Your task to perform on an android device: open app "NewsBreak: Local News & Alerts" (install if not already installed) Image 0: 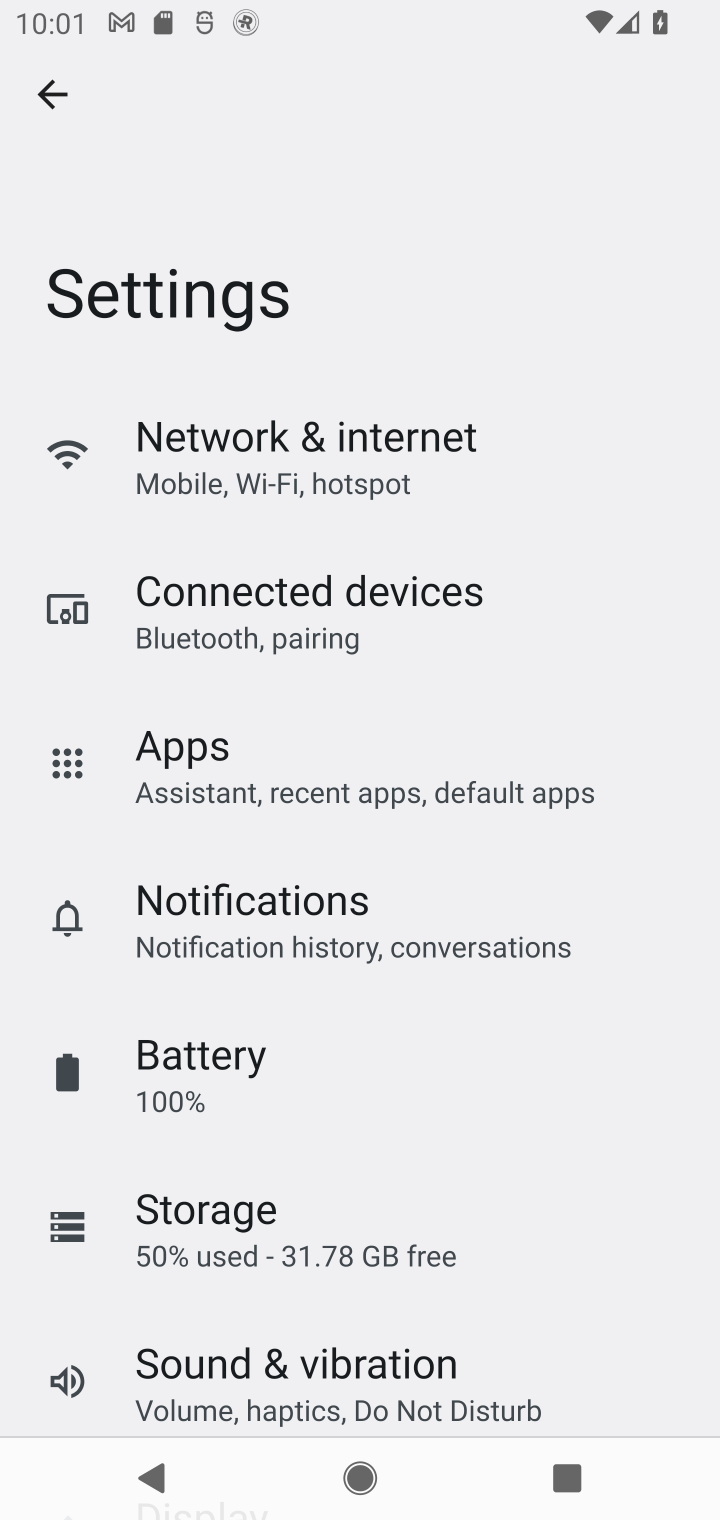
Step 0: press home button
Your task to perform on an android device: open app "NewsBreak: Local News & Alerts" (install if not already installed) Image 1: 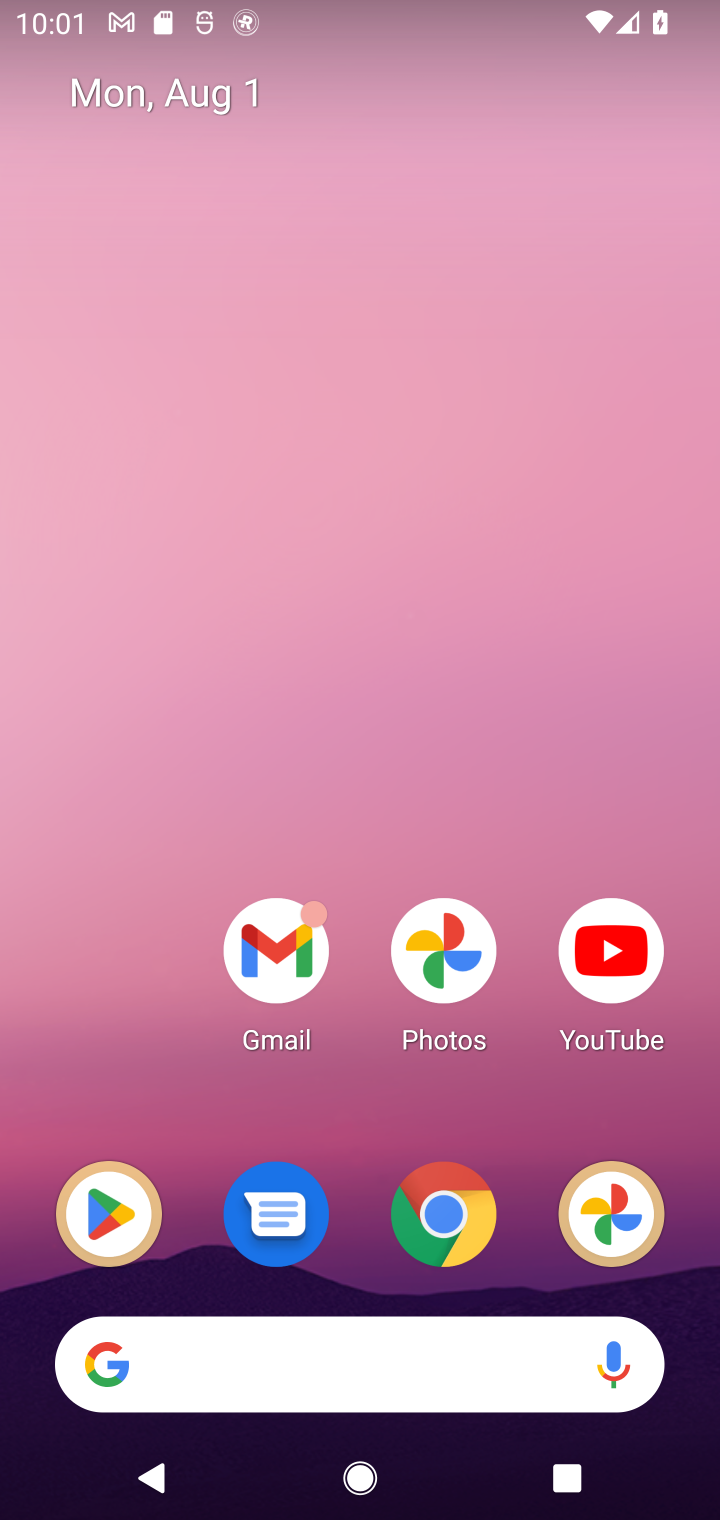
Step 1: click (90, 1213)
Your task to perform on an android device: open app "NewsBreak: Local News & Alerts" (install if not already installed) Image 2: 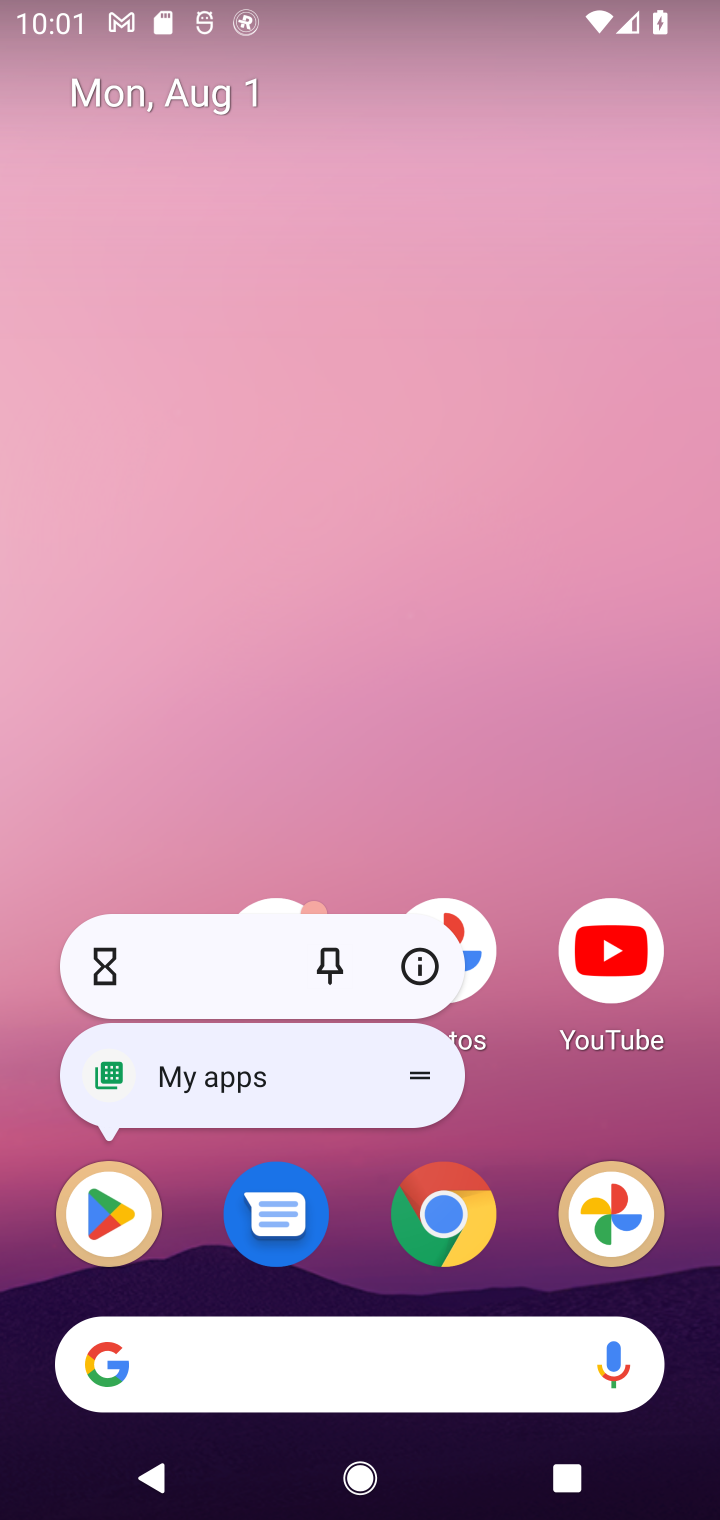
Step 2: click (90, 1213)
Your task to perform on an android device: open app "NewsBreak: Local News & Alerts" (install if not already installed) Image 3: 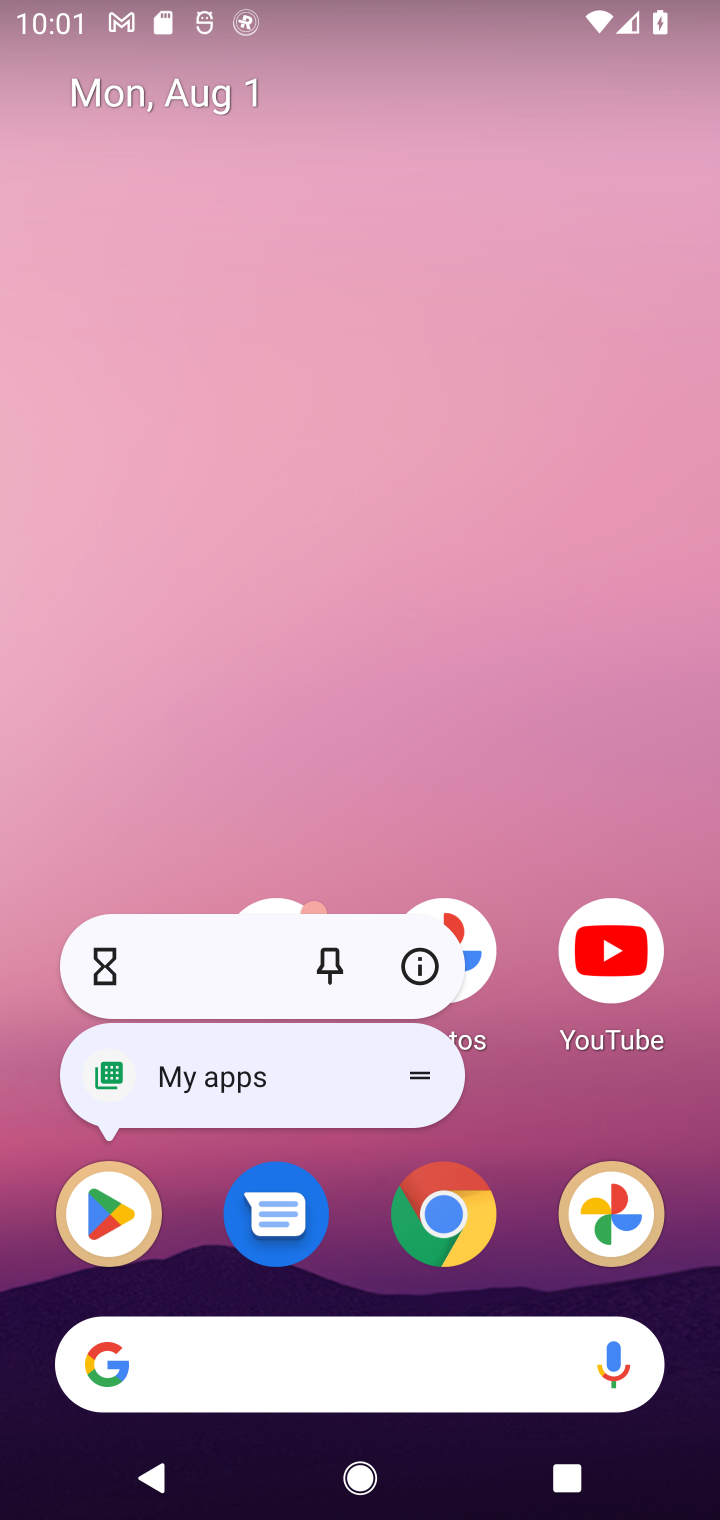
Step 3: click (90, 1213)
Your task to perform on an android device: open app "NewsBreak: Local News & Alerts" (install if not already installed) Image 4: 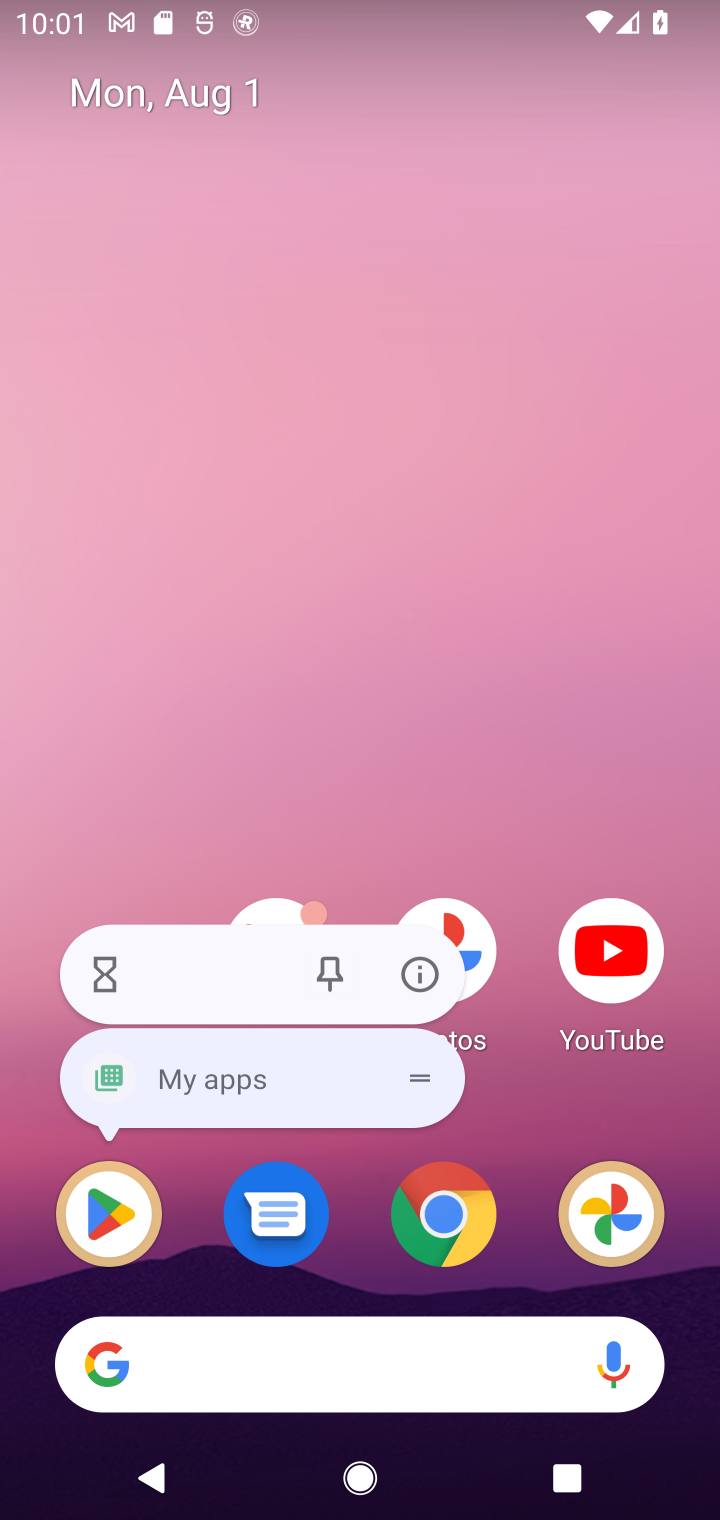
Step 4: click (90, 1209)
Your task to perform on an android device: open app "NewsBreak: Local News & Alerts" (install if not already installed) Image 5: 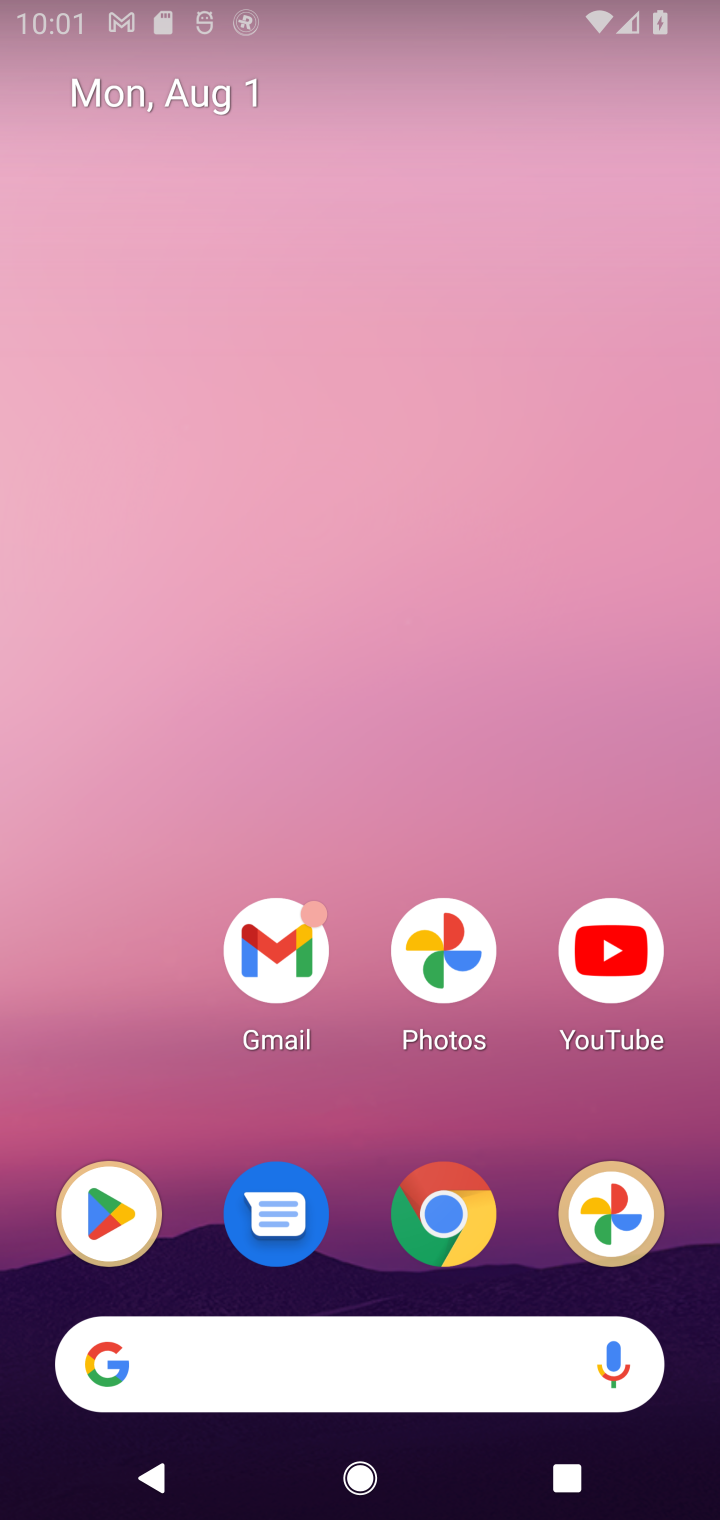
Step 5: click (90, 1209)
Your task to perform on an android device: open app "NewsBreak: Local News & Alerts" (install if not already installed) Image 6: 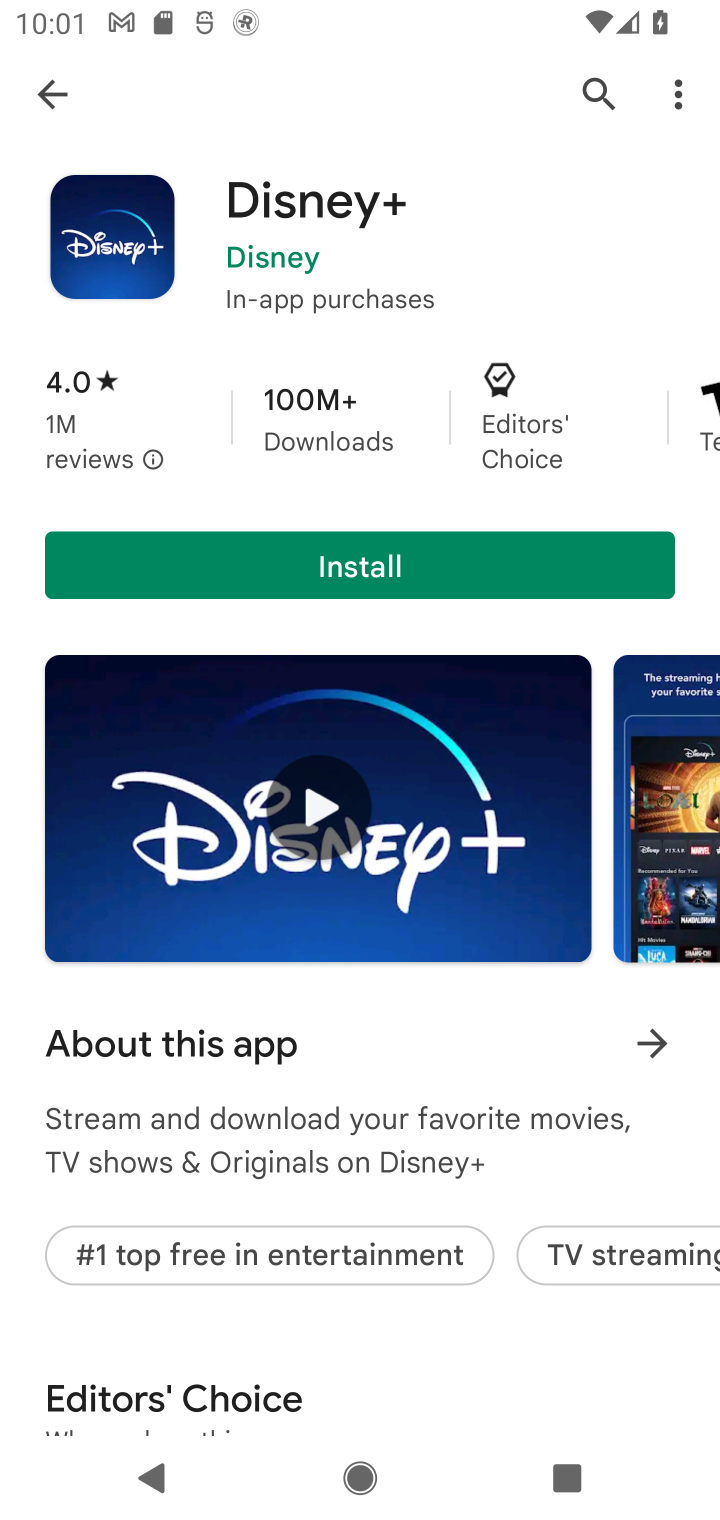
Step 6: click (590, 72)
Your task to perform on an android device: open app "NewsBreak: Local News & Alerts" (install if not already installed) Image 7: 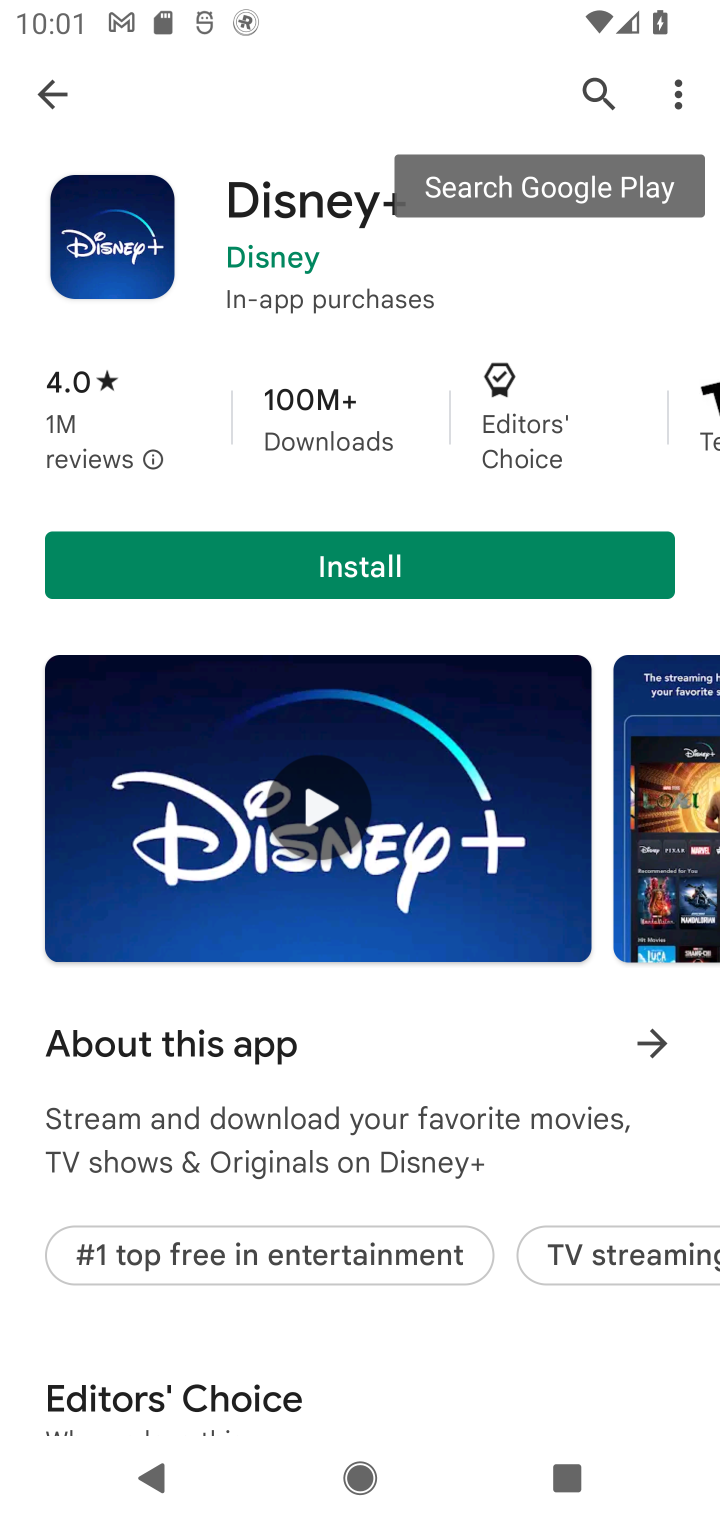
Step 7: click (588, 91)
Your task to perform on an android device: open app "NewsBreak: Local News & Alerts" (install if not already installed) Image 8: 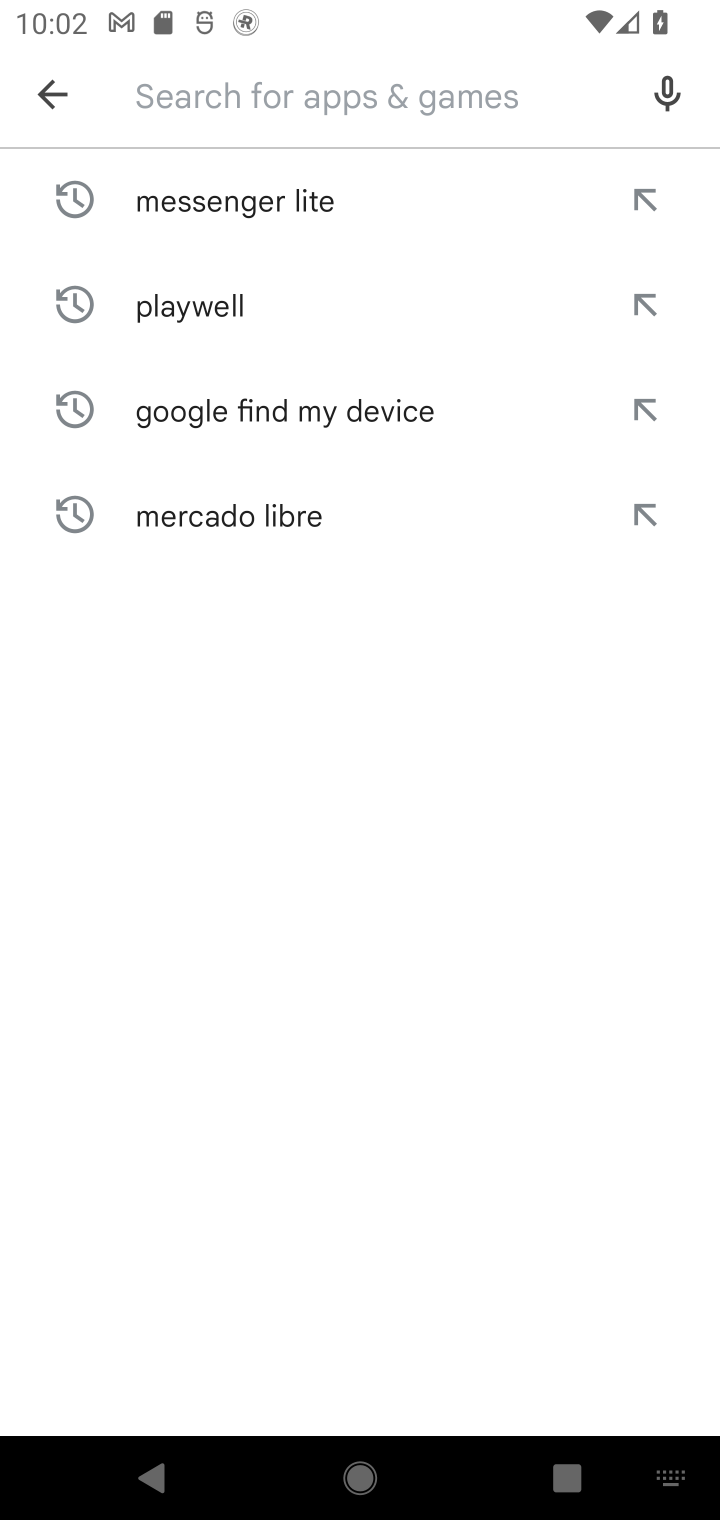
Step 8: type "NewsBreak: Local News & Alerts"
Your task to perform on an android device: open app "NewsBreak: Local News & Alerts" (install if not already installed) Image 9: 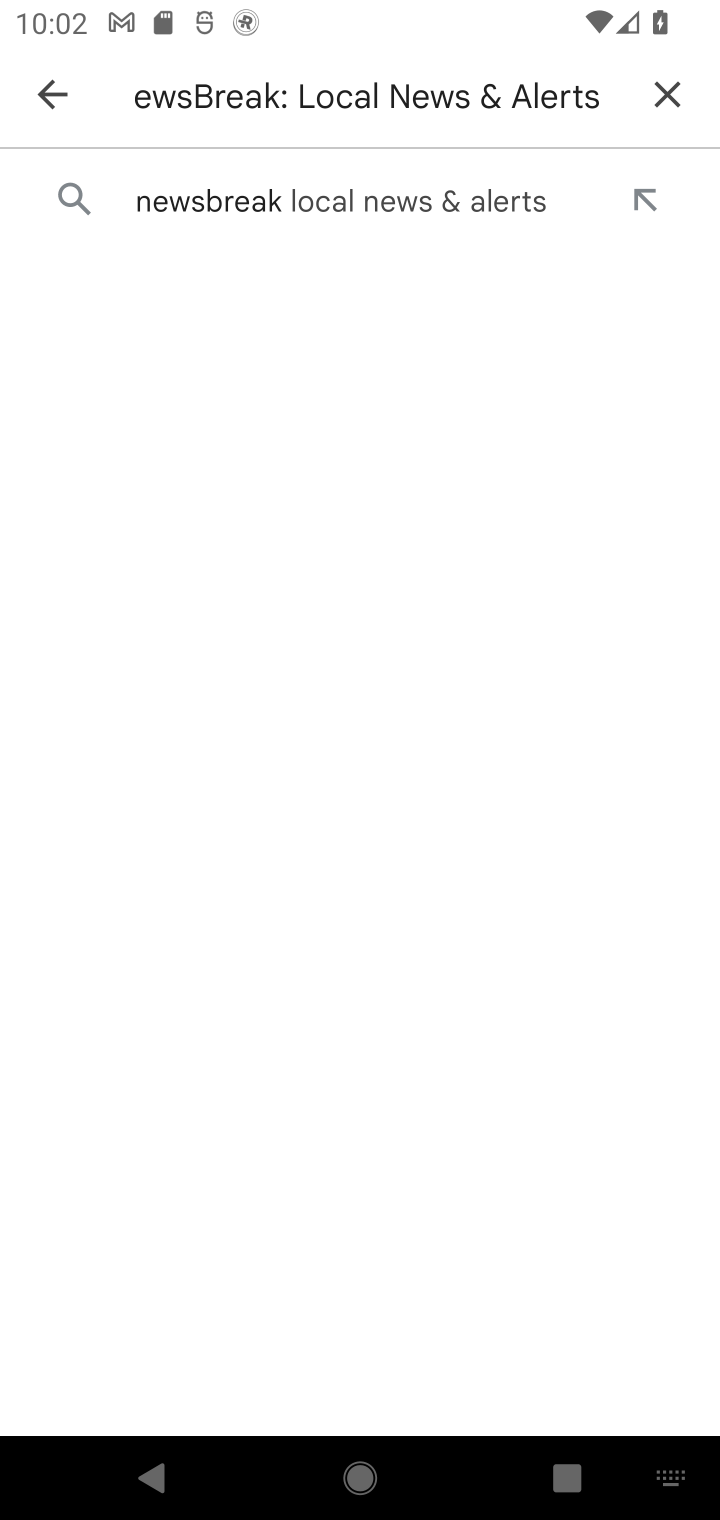
Step 9: click (321, 207)
Your task to perform on an android device: open app "NewsBreak: Local News & Alerts" (install if not already installed) Image 10: 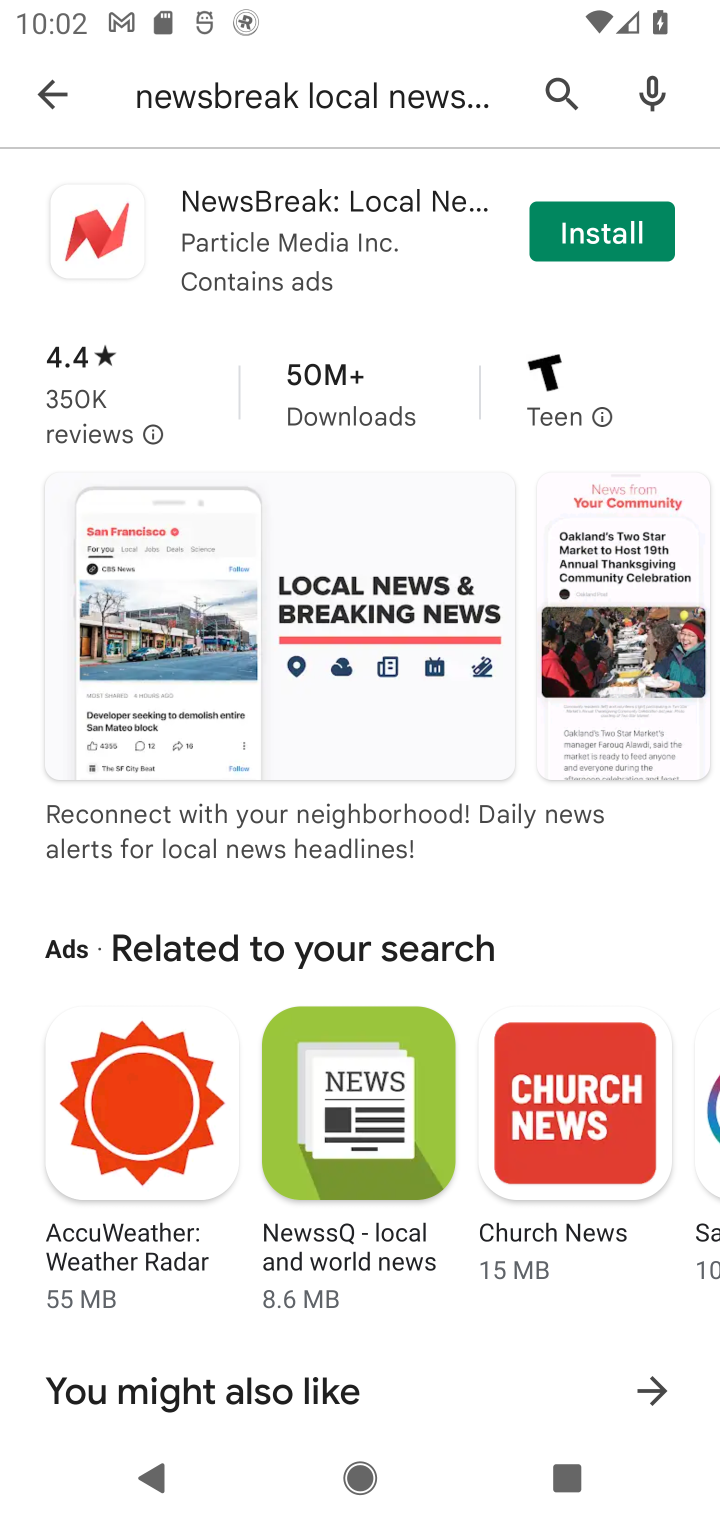
Step 10: click (625, 235)
Your task to perform on an android device: open app "NewsBreak: Local News & Alerts" (install if not already installed) Image 11: 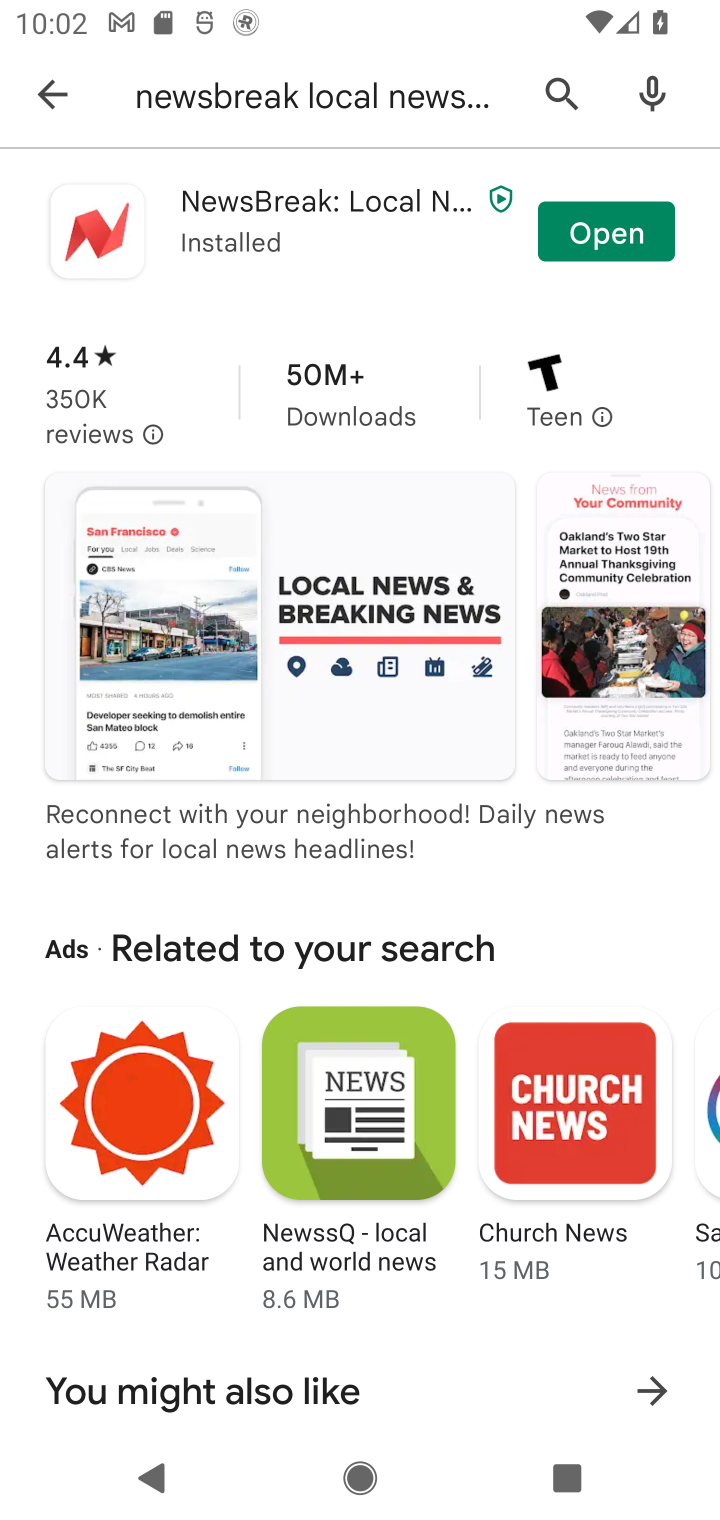
Step 11: click (625, 235)
Your task to perform on an android device: open app "NewsBreak: Local News & Alerts" (install if not already installed) Image 12: 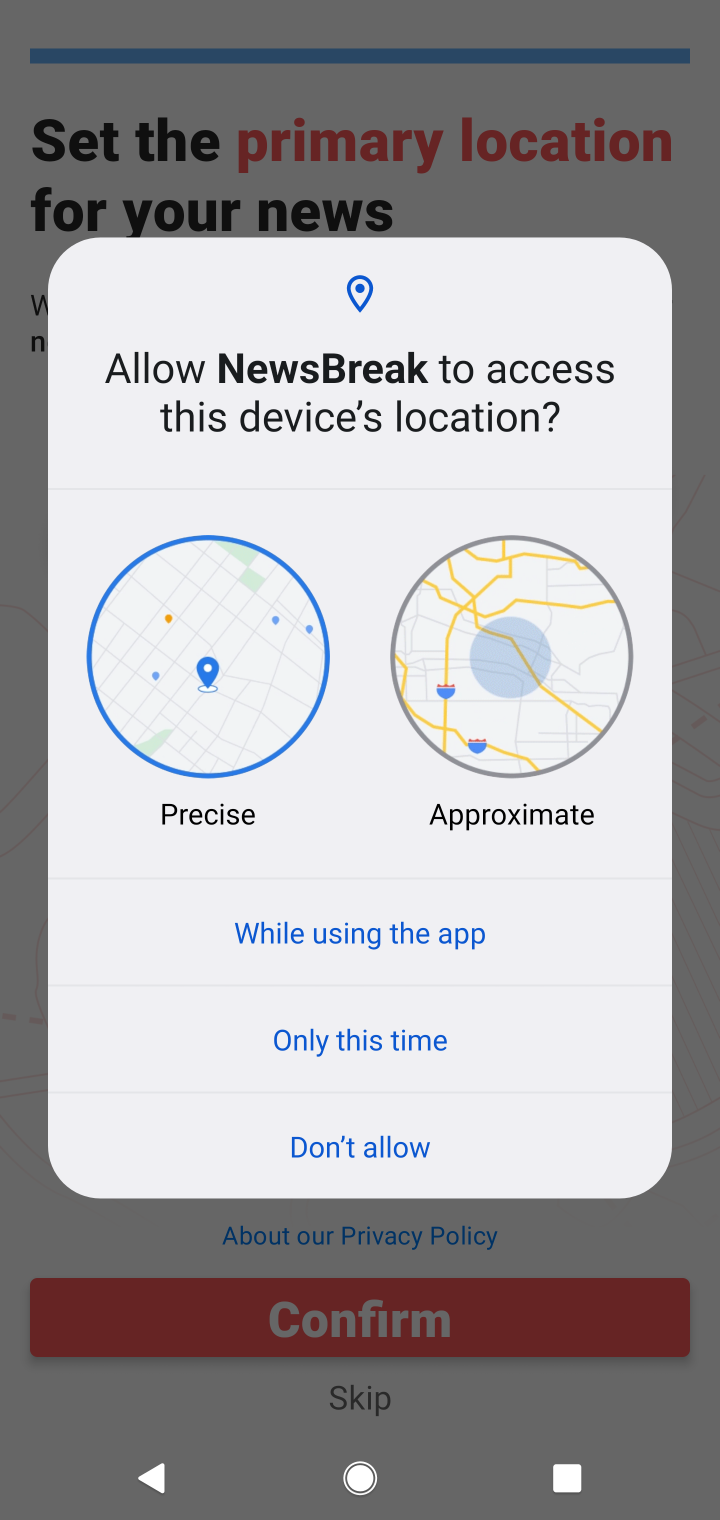
Step 12: task complete